Your task to perform on an android device: Go to Android settings Image 0: 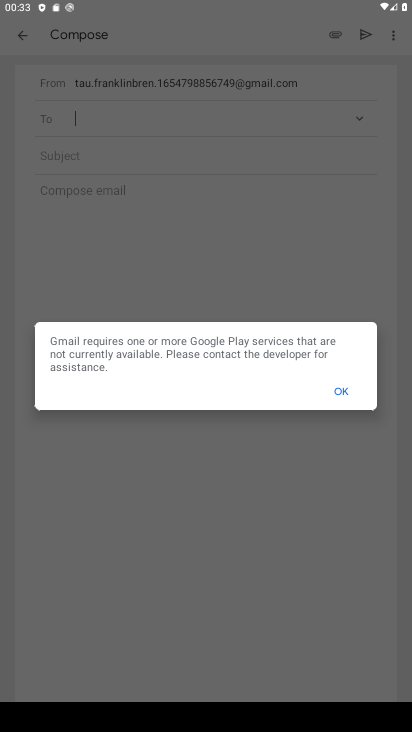
Step 0: press back button
Your task to perform on an android device: Go to Android settings Image 1: 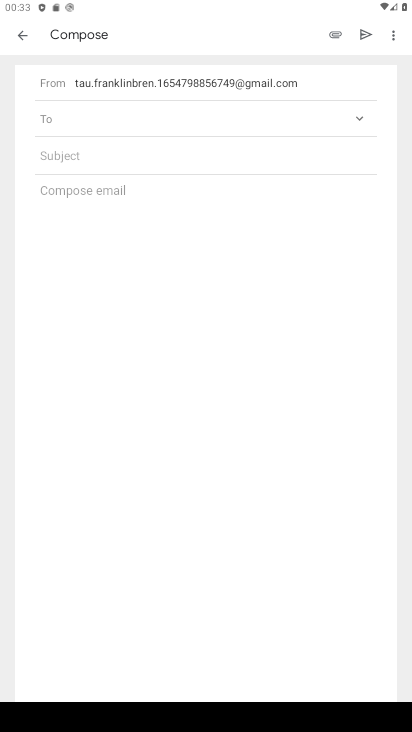
Step 1: click (350, 395)
Your task to perform on an android device: Go to Android settings Image 2: 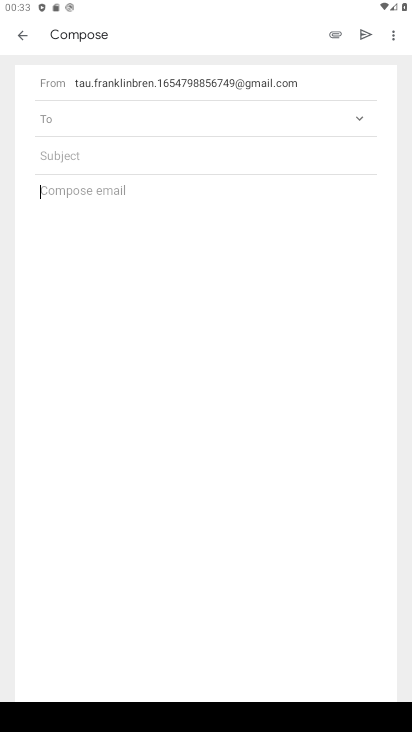
Step 2: click (20, 26)
Your task to perform on an android device: Go to Android settings Image 3: 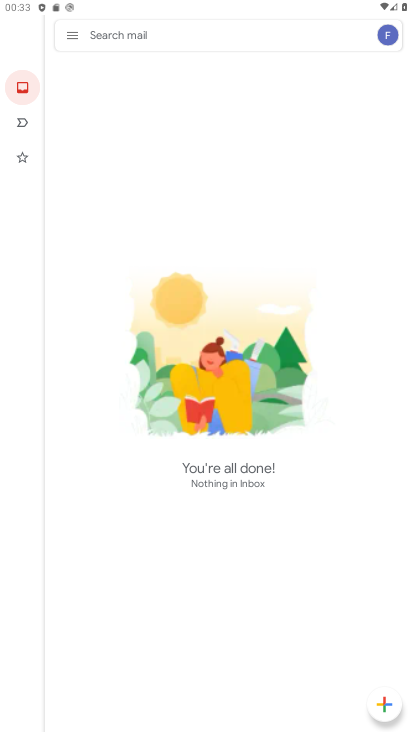
Step 3: press home button
Your task to perform on an android device: Go to Android settings Image 4: 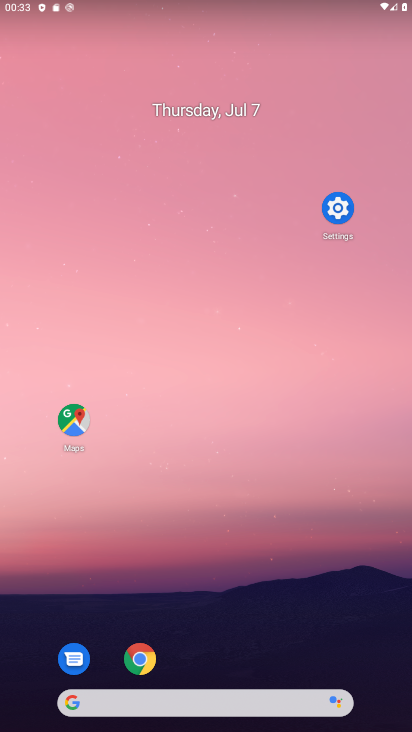
Step 4: drag from (243, 684) to (141, 77)
Your task to perform on an android device: Go to Android settings Image 5: 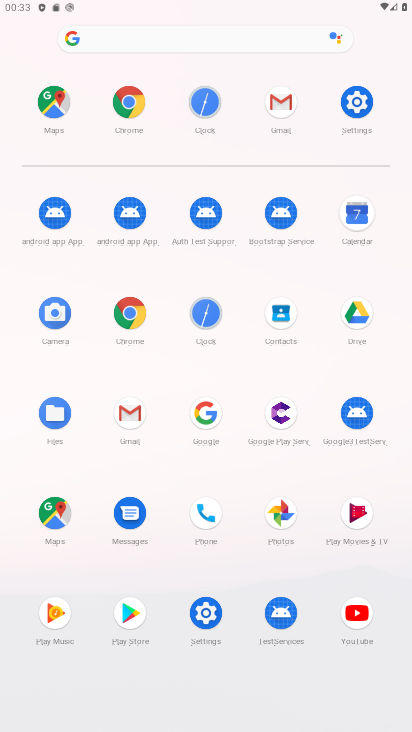
Step 5: click (365, 97)
Your task to perform on an android device: Go to Android settings Image 6: 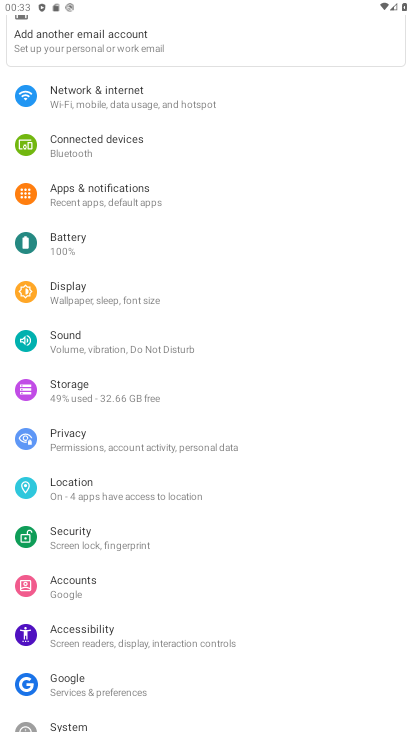
Step 6: drag from (135, 560) to (78, 129)
Your task to perform on an android device: Go to Android settings Image 7: 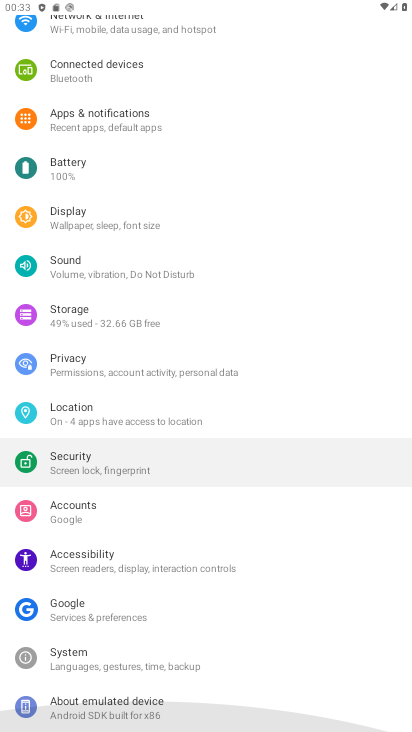
Step 7: drag from (135, 367) to (141, 191)
Your task to perform on an android device: Go to Android settings Image 8: 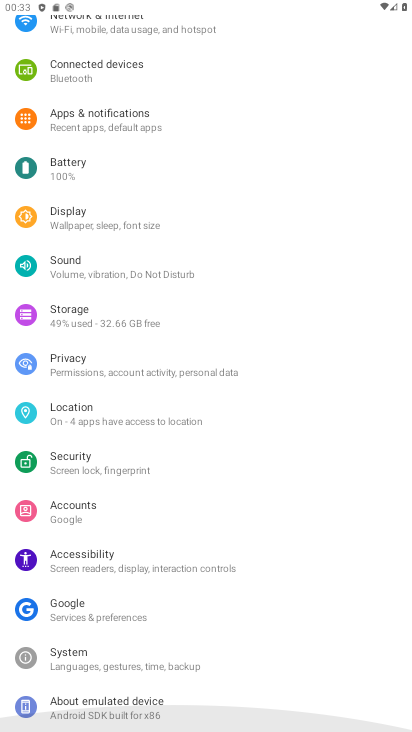
Step 8: drag from (162, 514) to (150, 133)
Your task to perform on an android device: Go to Android settings Image 9: 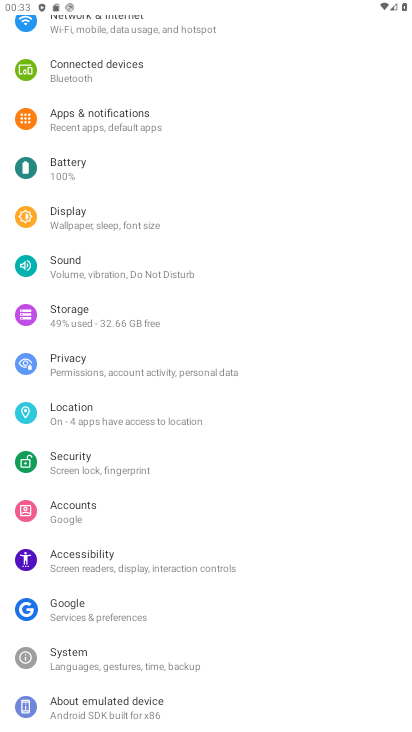
Step 9: click (99, 716)
Your task to perform on an android device: Go to Android settings Image 10: 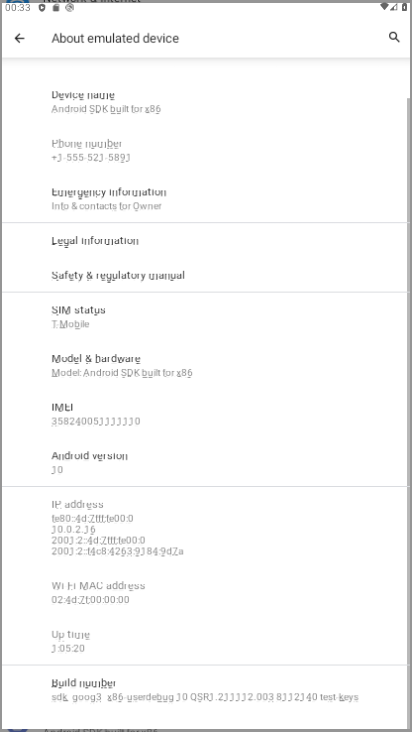
Step 10: click (105, 709)
Your task to perform on an android device: Go to Android settings Image 11: 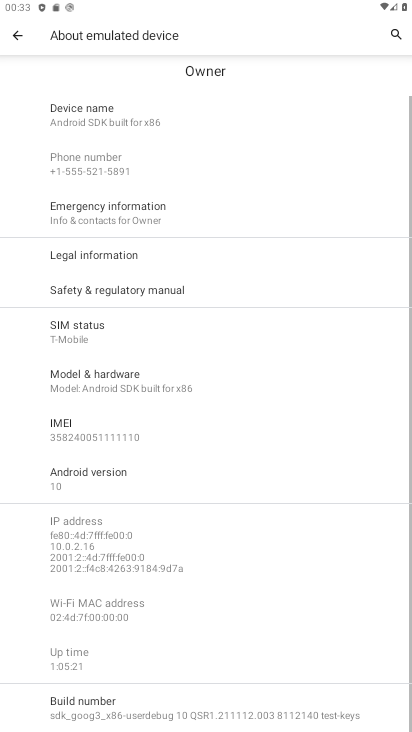
Step 11: task complete